Your task to perform on an android device: add a label to a message in the gmail app Image 0: 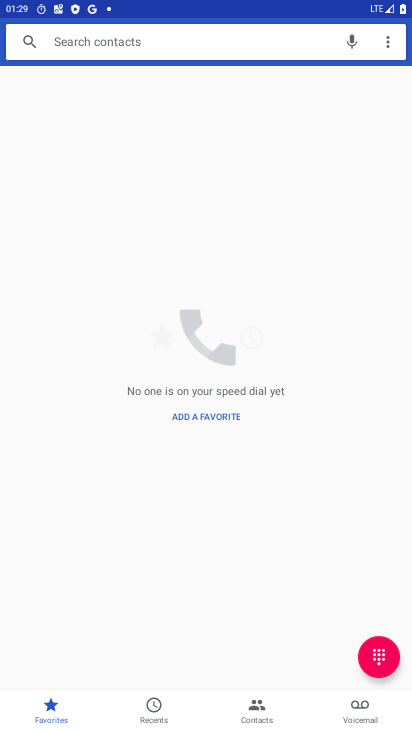
Step 0: press home button
Your task to perform on an android device: add a label to a message in the gmail app Image 1: 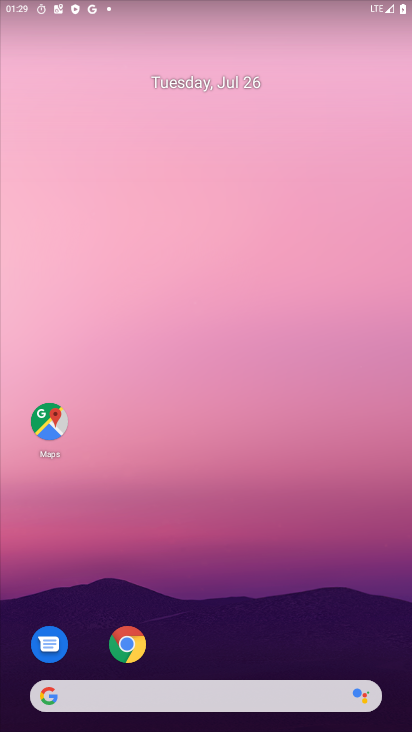
Step 1: drag from (239, 657) to (226, 27)
Your task to perform on an android device: add a label to a message in the gmail app Image 2: 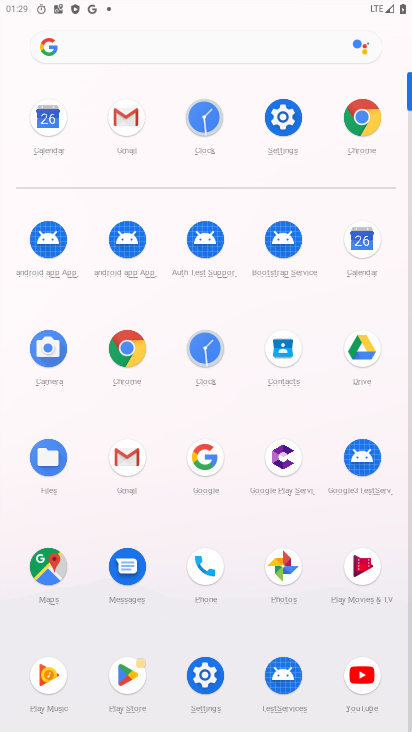
Step 2: click (118, 125)
Your task to perform on an android device: add a label to a message in the gmail app Image 3: 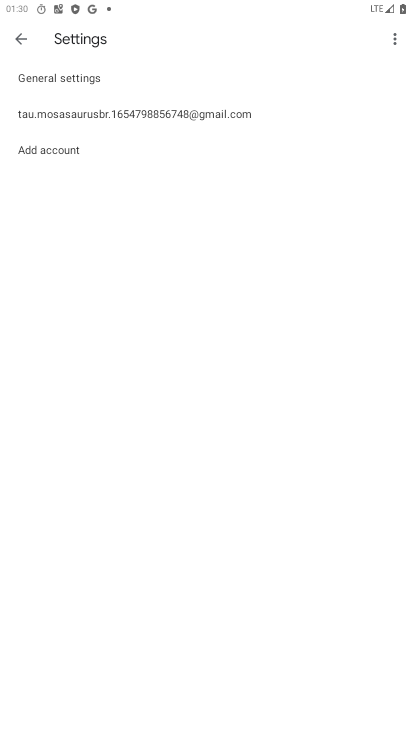
Step 3: click (12, 41)
Your task to perform on an android device: add a label to a message in the gmail app Image 4: 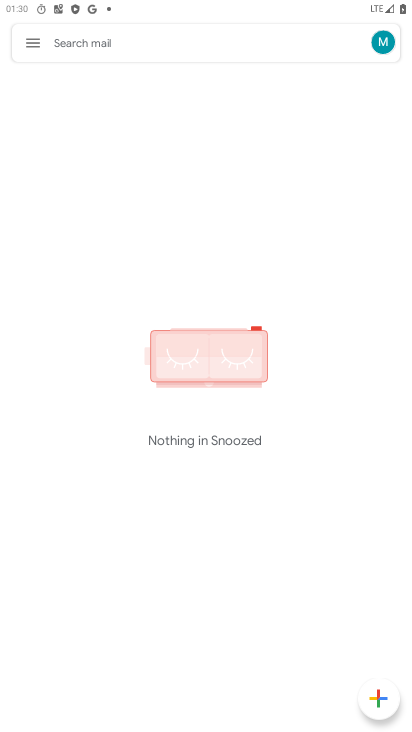
Step 4: click (34, 42)
Your task to perform on an android device: add a label to a message in the gmail app Image 5: 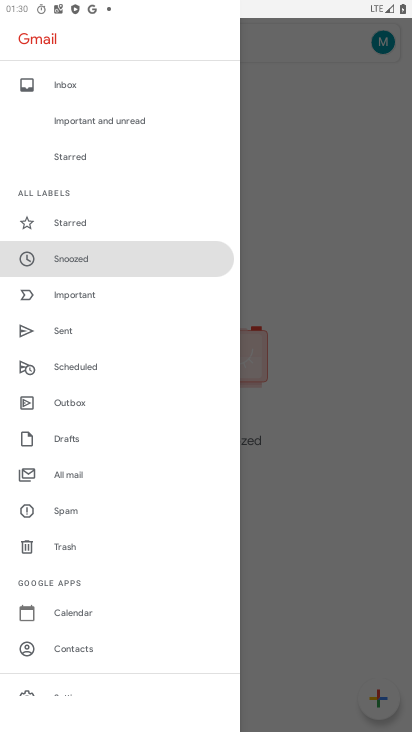
Step 5: click (91, 471)
Your task to perform on an android device: add a label to a message in the gmail app Image 6: 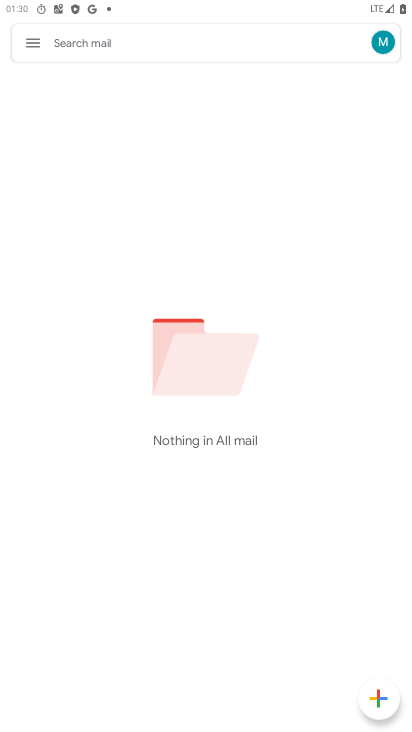
Step 6: task complete